Your task to perform on an android device: change keyboard looks Image 0: 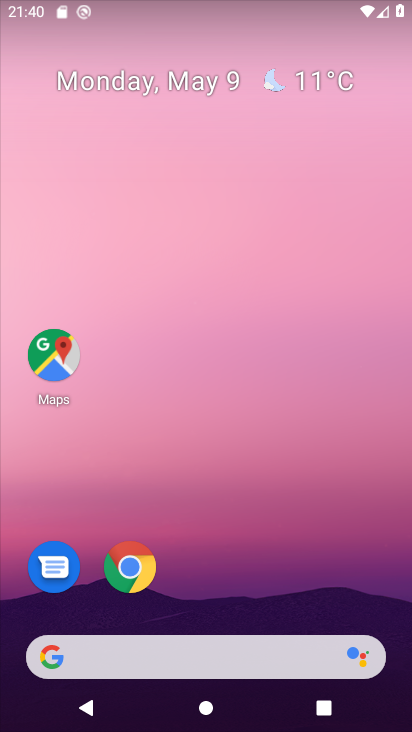
Step 0: drag from (250, 518) to (216, 45)
Your task to perform on an android device: change keyboard looks Image 1: 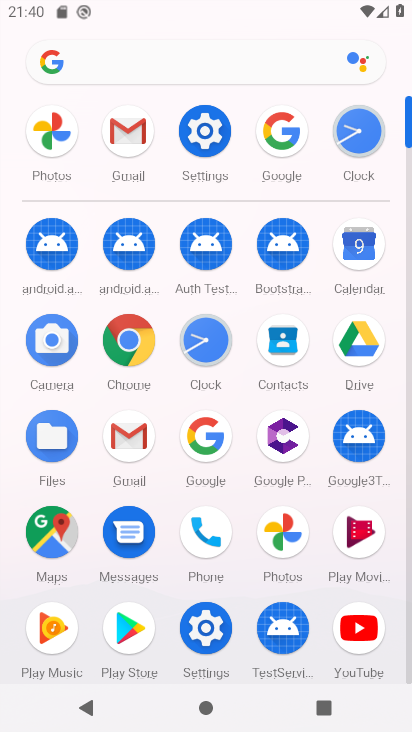
Step 1: click (208, 136)
Your task to perform on an android device: change keyboard looks Image 2: 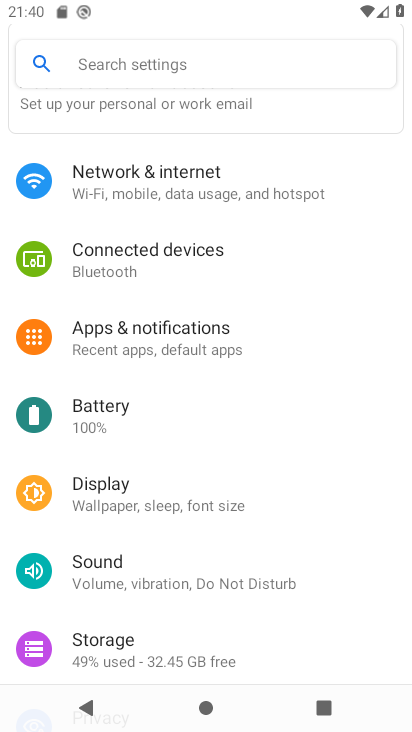
Step 2: drag from (205, 629) to (220, 133)
Your task to perform on an android device: change keyboard looks Image 3: 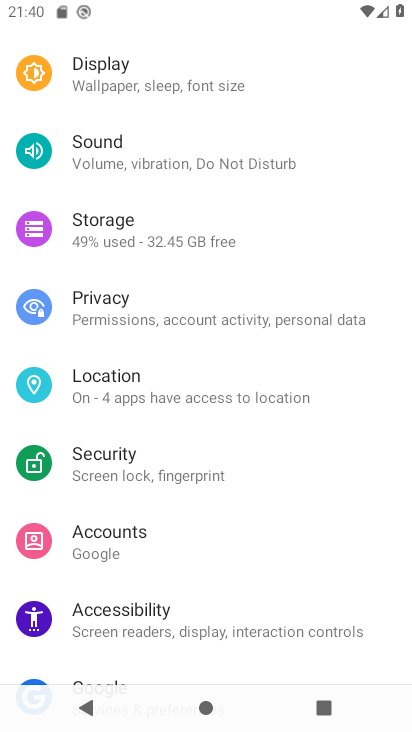
Step 3: drag from (199, 562) to (194, 117)
Your task to perform on an android device: change keyboard looks Image 4: 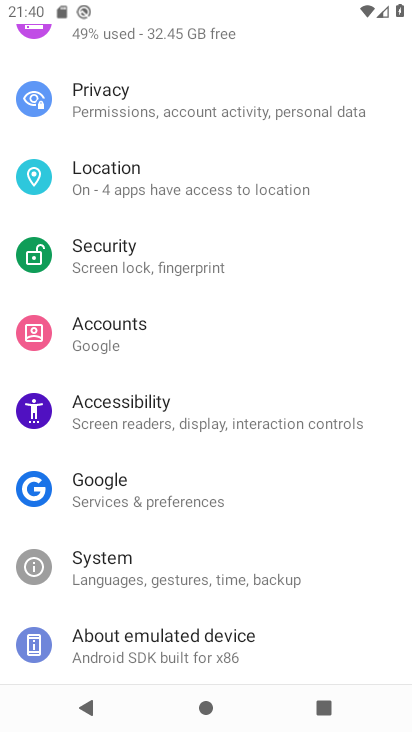
Step 4: click (162, 569)
Your task to perform on an android device: change keyboard looks Image 5: 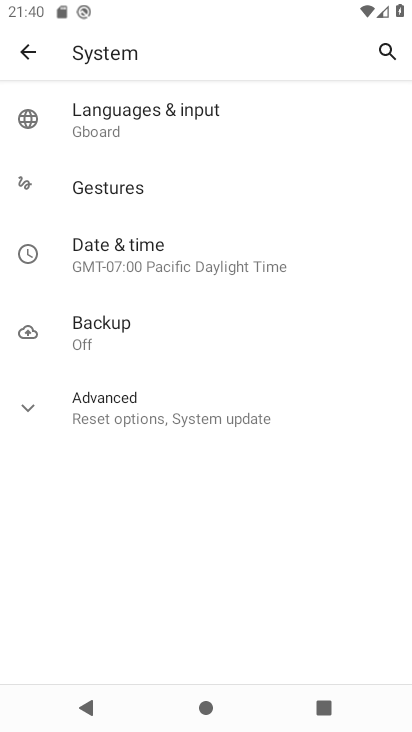
Step 5: click (203, 131)
Your task to perform on an android device: change keyboard looks Image 6: 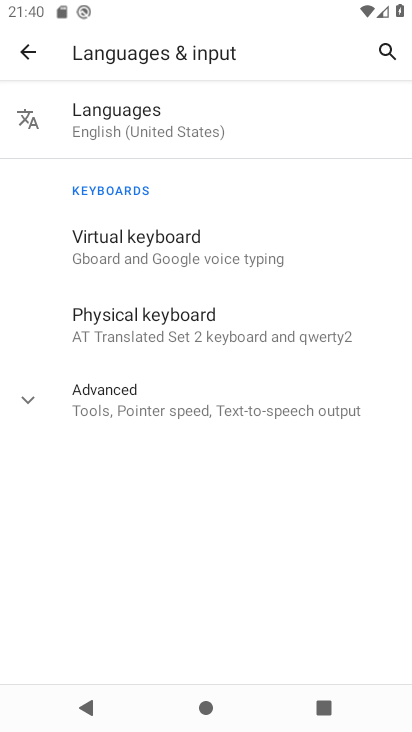
Step 6: click (161, 246)
Your task to perform on an android device: change keyboard looks Image 7: 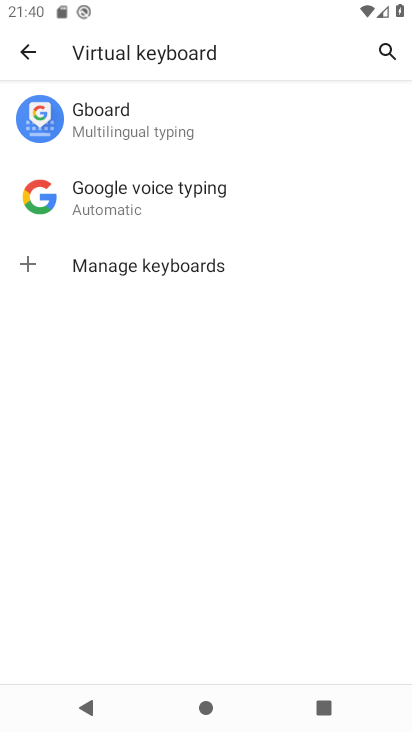
Step 7: click (171, 126)
Your task to perform on an android device: change keyboard looks Image 8: 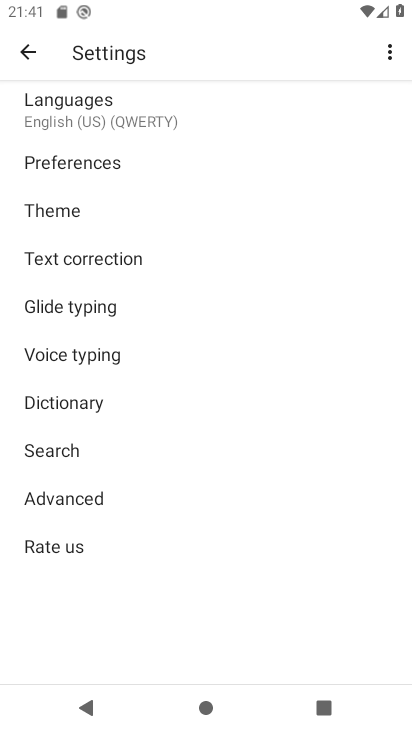
Step 8: click (122, 206)
Your task to perform on an android device: change keyboard looks Image 9: 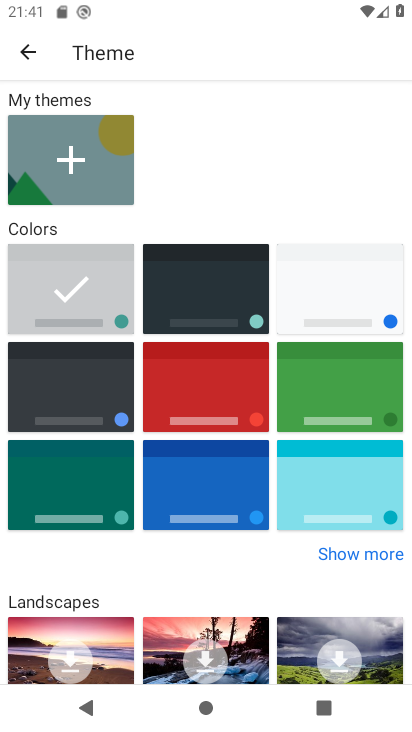
Step 9: click (213, 559)
Your task to perform on an android device: change keyboard looks Image 10: 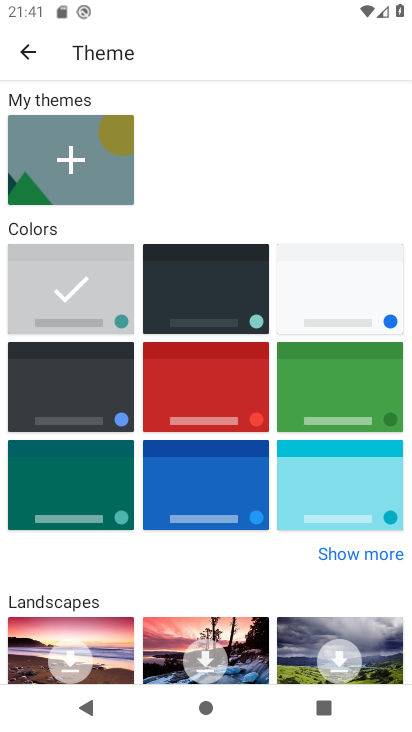
Step 10: click (207, 507)
Your task to perform on an android device: change keyboard looks Image 11: 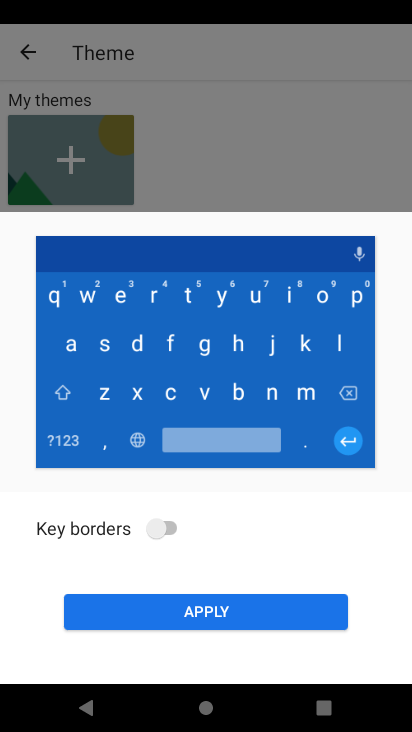
Step 11: click (198, 606)
Your task to perform on an android device: change keyboard looks Image 12: 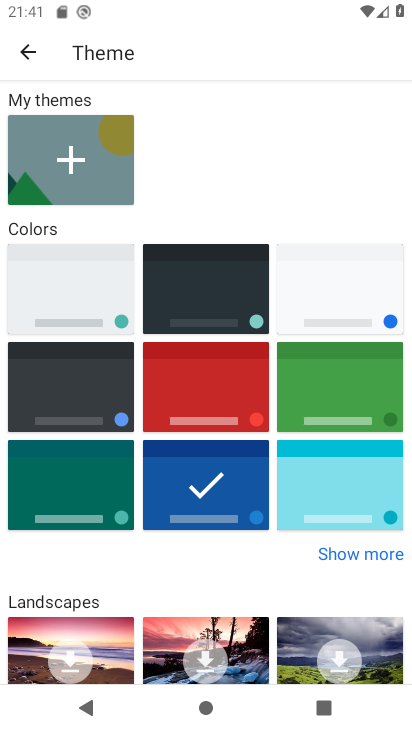
Step 12: task complete